Your task to perform on an android device: turn off improve location accuracy Image 0: 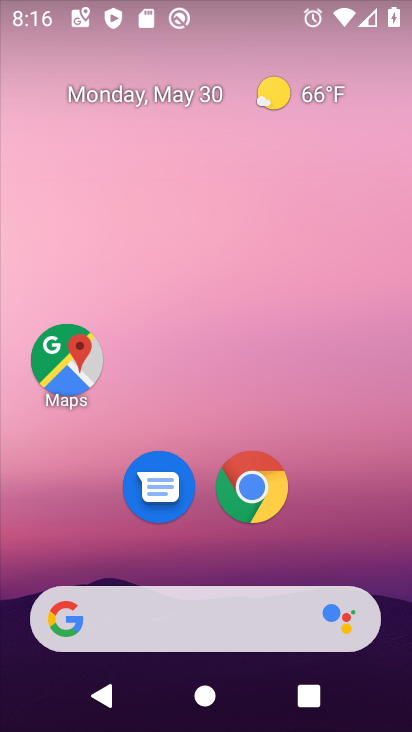
Step 0: press home button
Your task to perform on an android device: turn off improve location accuracy Image 1: 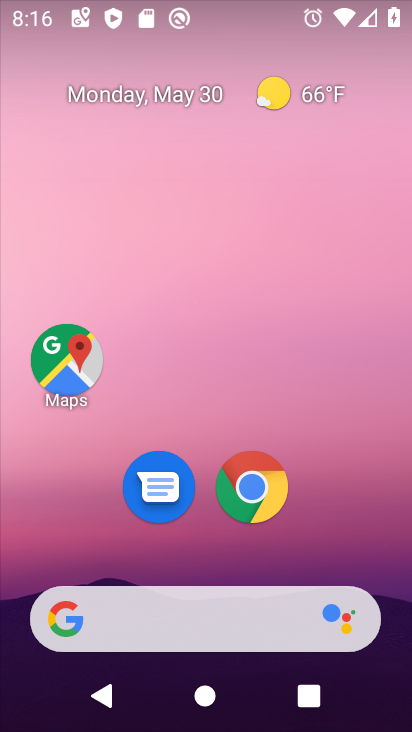
Step 1: drag from (345, 450) to (302, 86)
Your task to perform on an android device: turn off improve location accuracy Image 2: 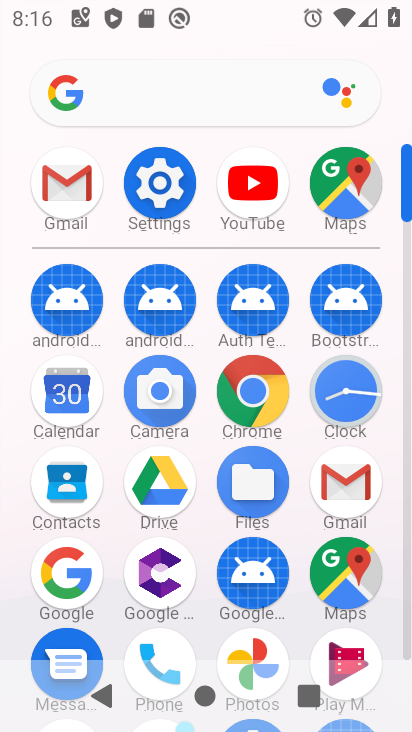
Step 2: click (166, 183)
Your task to perform on an android device: turn off improve location accuracy Image 3: 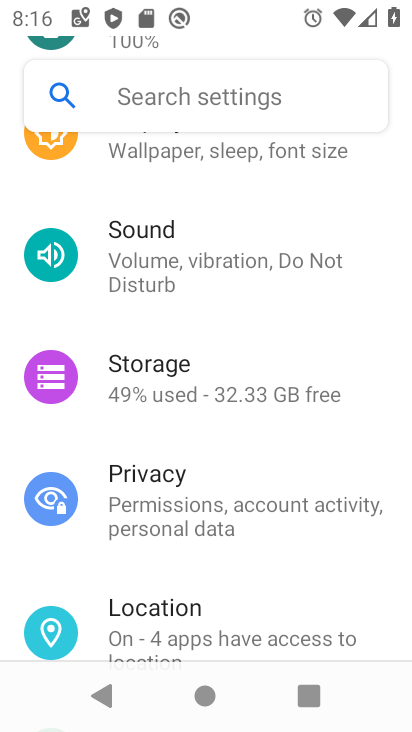
Step 3: click (147, 611)
Your task to perform on an android device: turn off improve location accuracy Image 4: 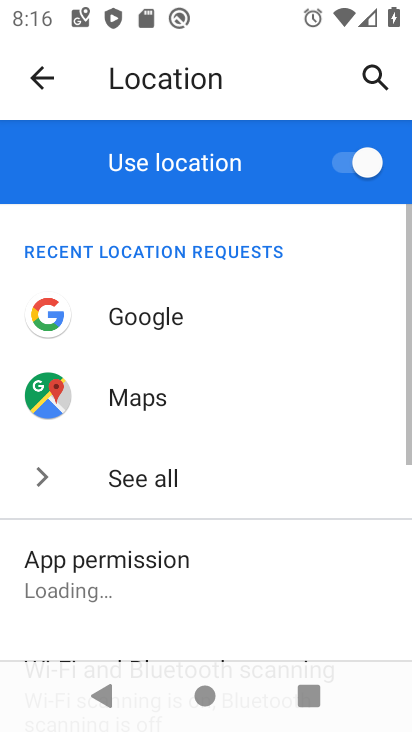
Step 4: drag from (253, 396) to (293, 6)
Your task to perform on an android device: turn off improve location accuracy Image 5: 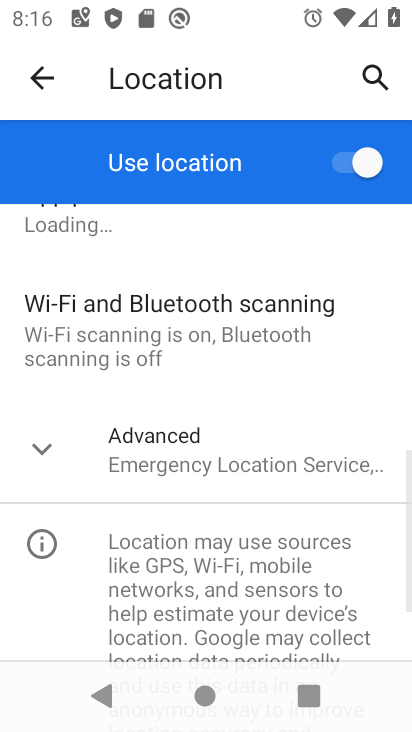
Step 5: click (164, 445)
Your task to perform on an android device: turn off improve location accuracy Image 6: 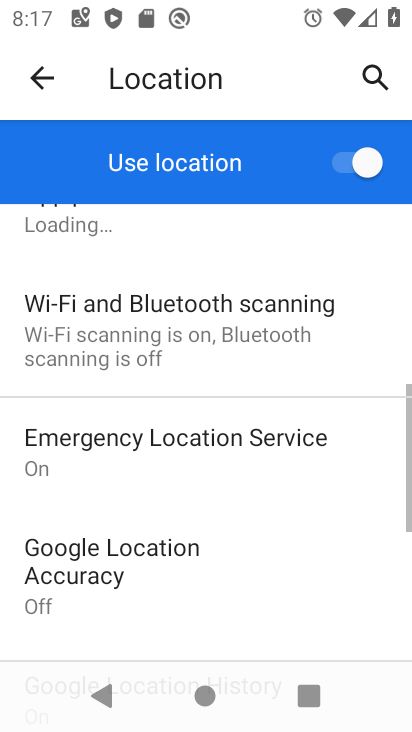
Step 6: drag from (324, 530) to (294, 263)
Your task to perform on an android device: turn off improve location accuracy Image 7: 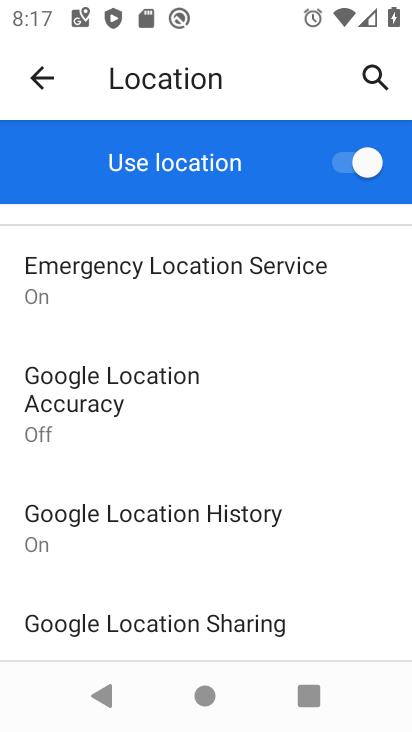
Step 7: click (110, 407)
Your task to perform on an android device: turn off improve location accuracy Image 8: 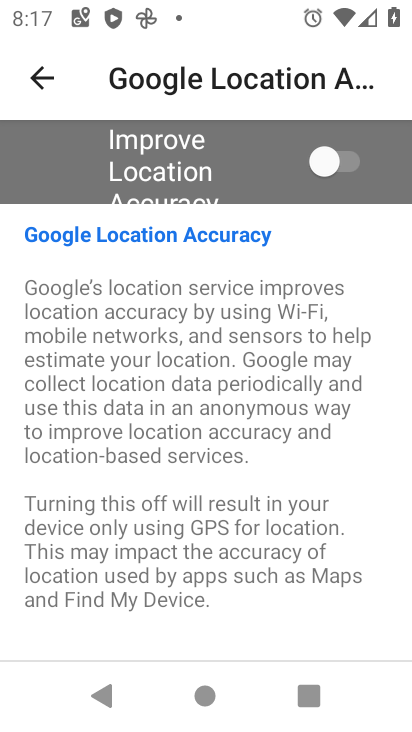
Step 8: task complete